Your task to perform on an android device: set the timer Image 0: 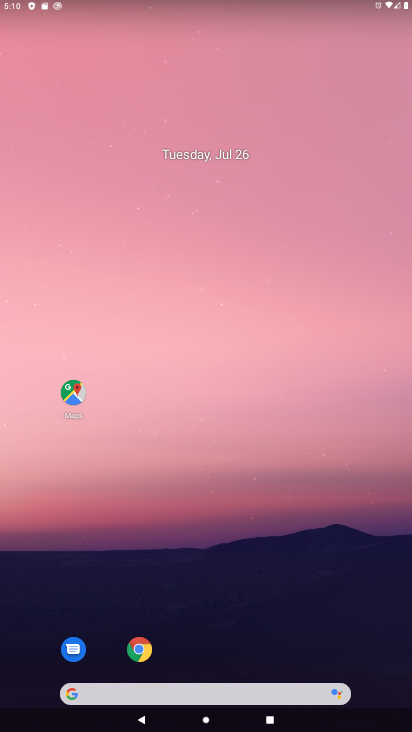
Step 0: drag from (229, 656) to (156, 74)
Your task to perform on an android device: set the timer Image 1: 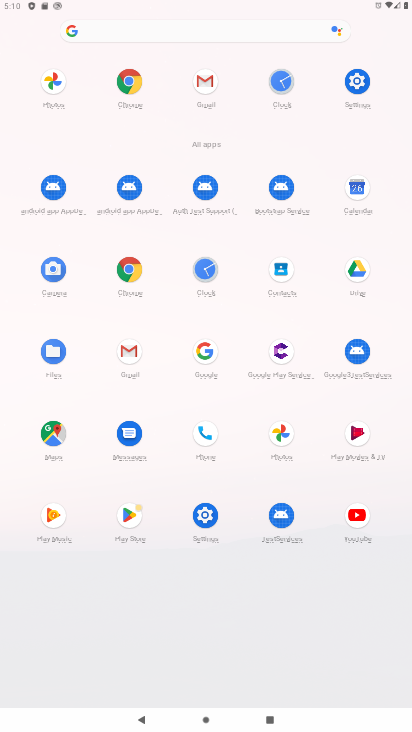
Step 1: click (275, 81)
Your task to perform on an android device: set the timer Image 2: 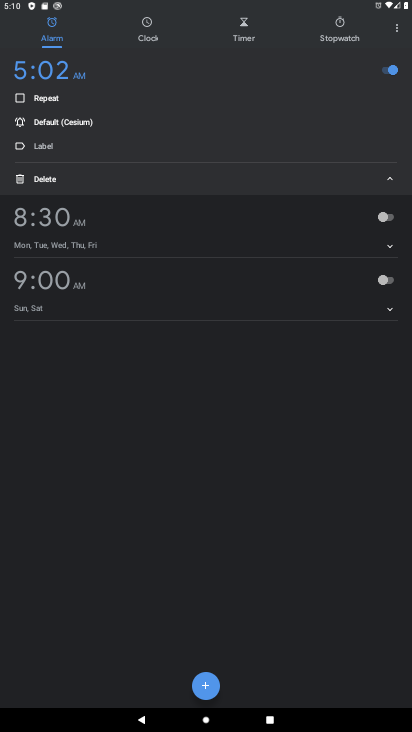
Step 2: click (244, 22)
Your task to perform on an android device: set the timer Image 3: 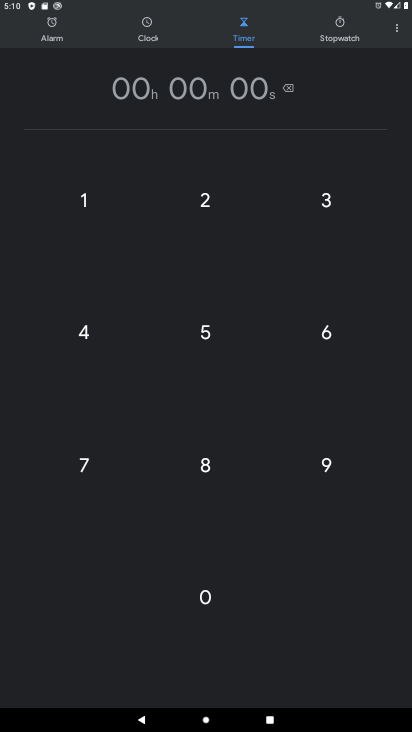
Step 3: type "10000"
Your task to perform on an android device: set the timer Image 4: 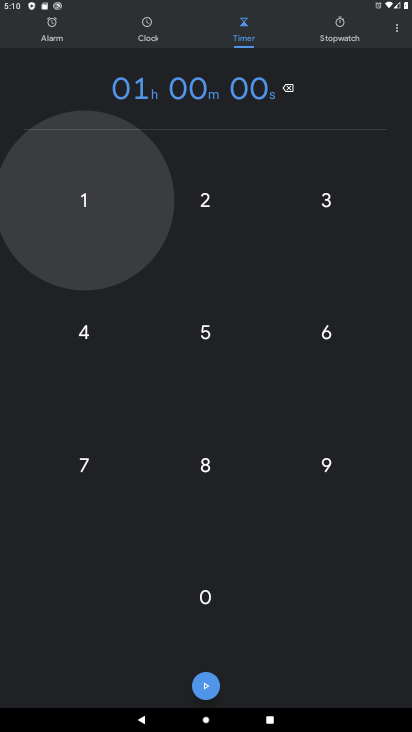
Step 4: click (204, 696)
Your task to perform on an android device: set the timer Image 5: 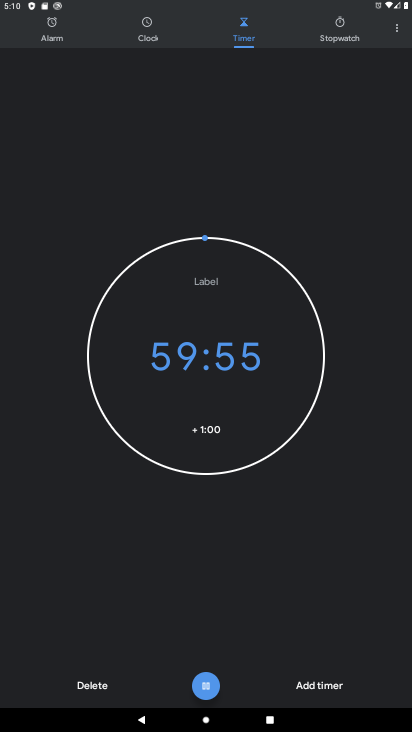
Step 5: task complete